Your task to perform on an android device: add a label to a message in the gmail app Image 0: 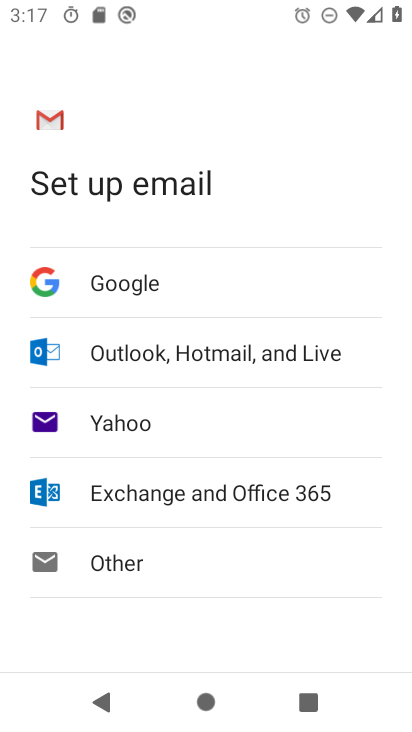
Step 0: press home button
Your task to perform on an android device: add a label to a message in the gmail app Image 1: 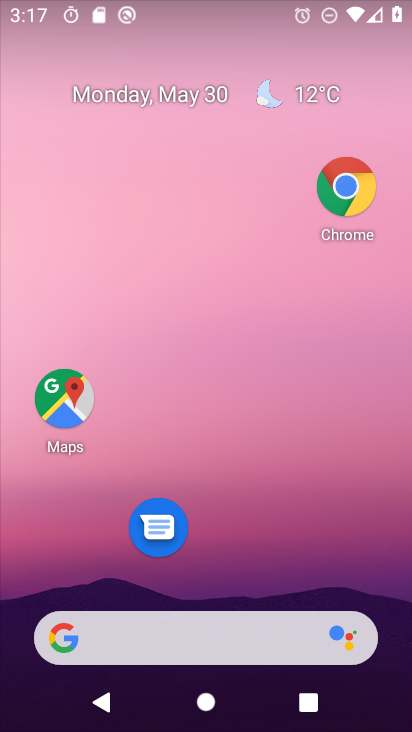
Step 1: drag from (226, 524) to (332, 42)
Your task to perform on an android device: add a label to a message in the gmail app Image 2: 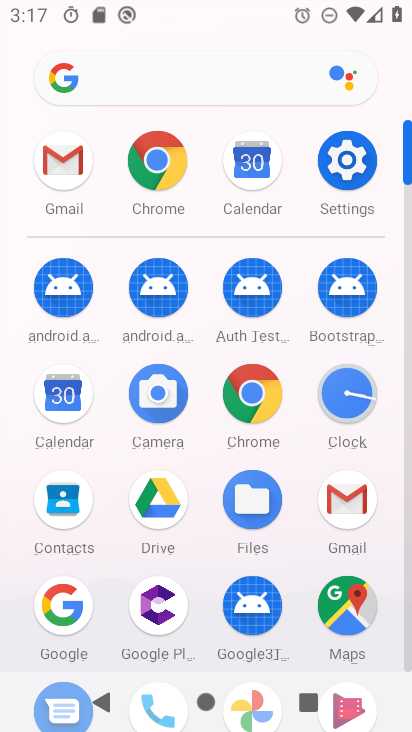
Step 2: click (329, 503)
Your task to perform on an android device: add a label to a message in the gmail app Image 3: 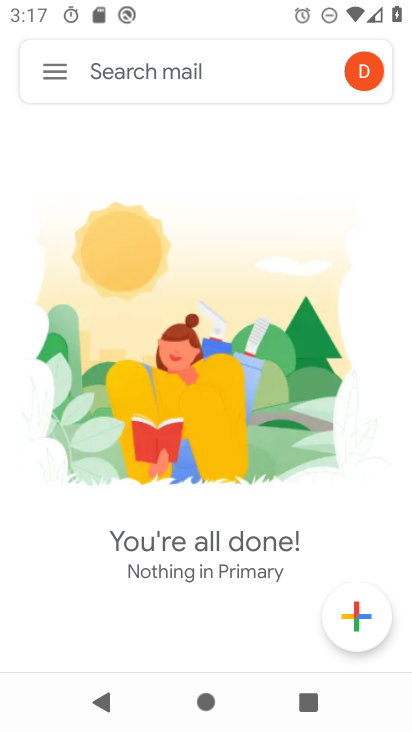
Step 3: click (50, 81)
Your task to perform on an android device: add a label to a message in the gmail app Image 4: 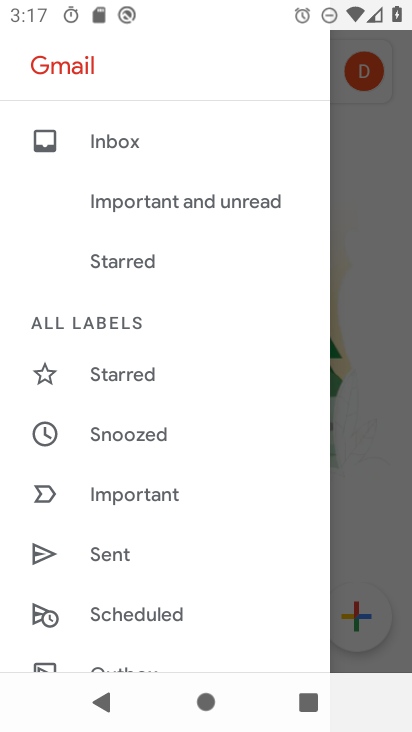
Step 4: task complete